Your task to perform on an android device: visit the assistant section in the google photos Image 0: 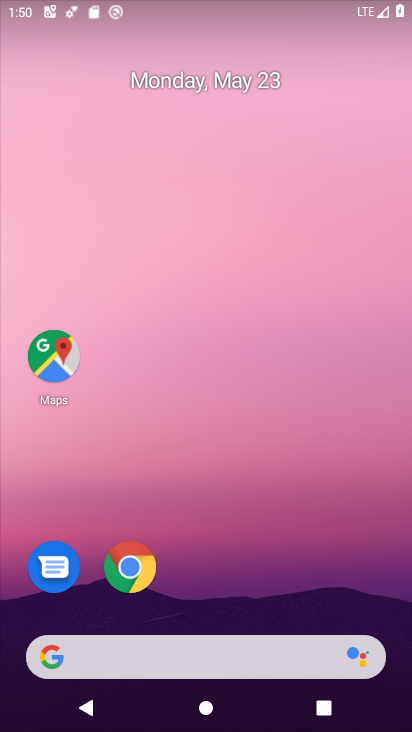
Step 0: drag from (229, 595) to (222, 239)
Your task to perform on an android device: visit the assistant section in the google photos Image 1: 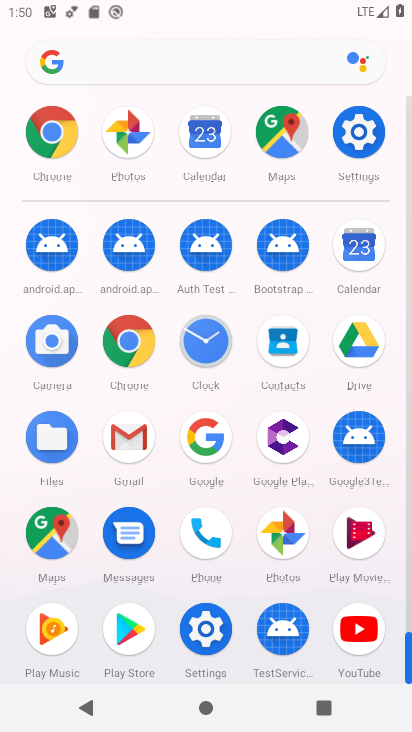
Step 1: click (269, 545)
Your task to perform on an android device: visit the assistant section in the google photos Image 2: 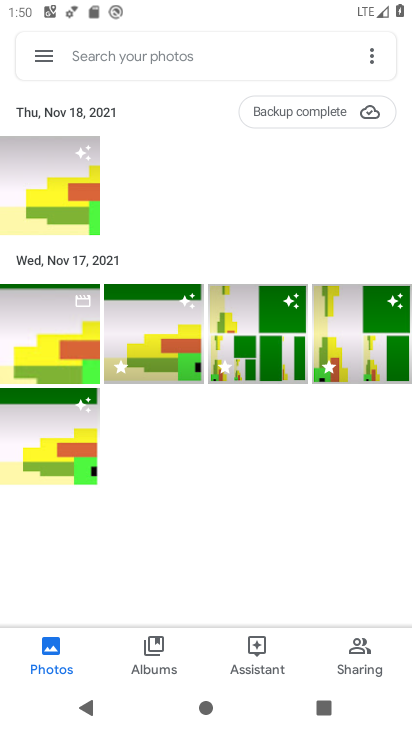
Step 2: click (254, 656)
Your task to perform on an android device: visit the assistant section in the google photos Image 3: 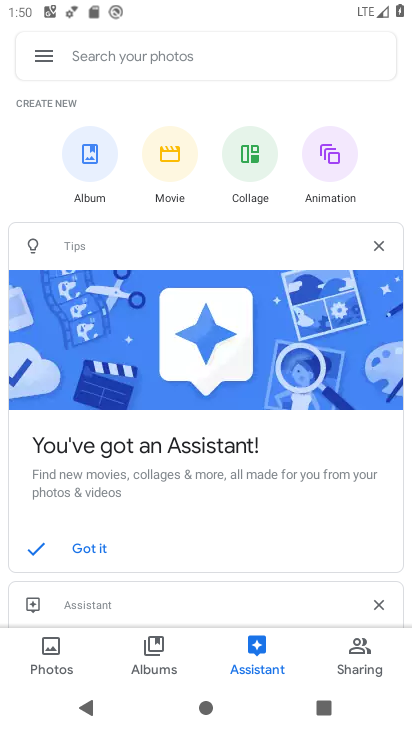
Step 3: click (155, 556)
Your task to perform on an android device: visit the assistant section in the google photos Image 4: 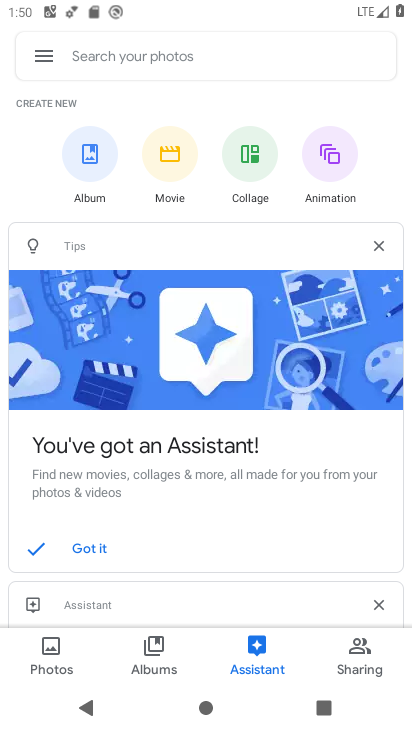
Step 4: drag from (153, 556) to (190, 339)
Your task to perform on an android device: visit the assistant section in the google photos Image 5: 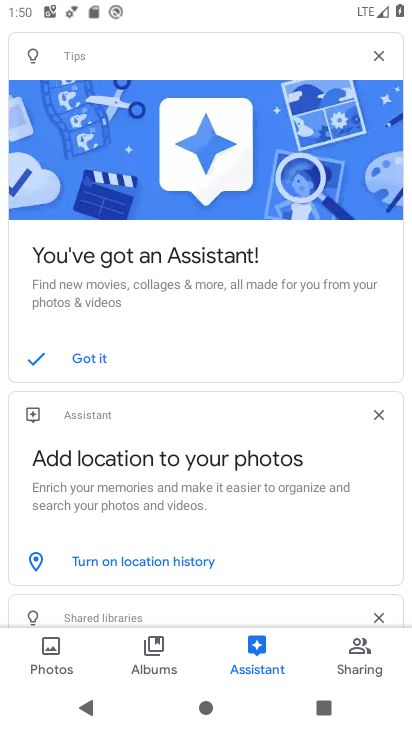
Step 5: drag from (218, 476) to (214, 319)
Your task to perform on an android device: visit the assistant section in the google photos Image 6: 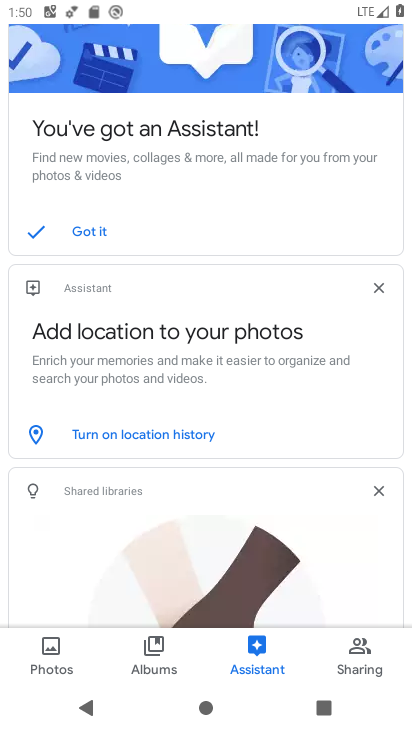
Step 6: click (89, 236)
Your task to perform on an android device: visit the assistant section in the google photos Image 7: 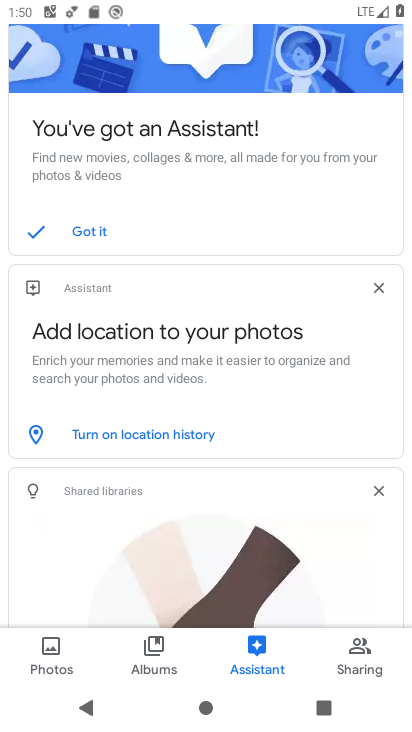
Step 7: task complete